Your task to perform on an android device: Add "dell xps" to the cart on ebay Image 0: 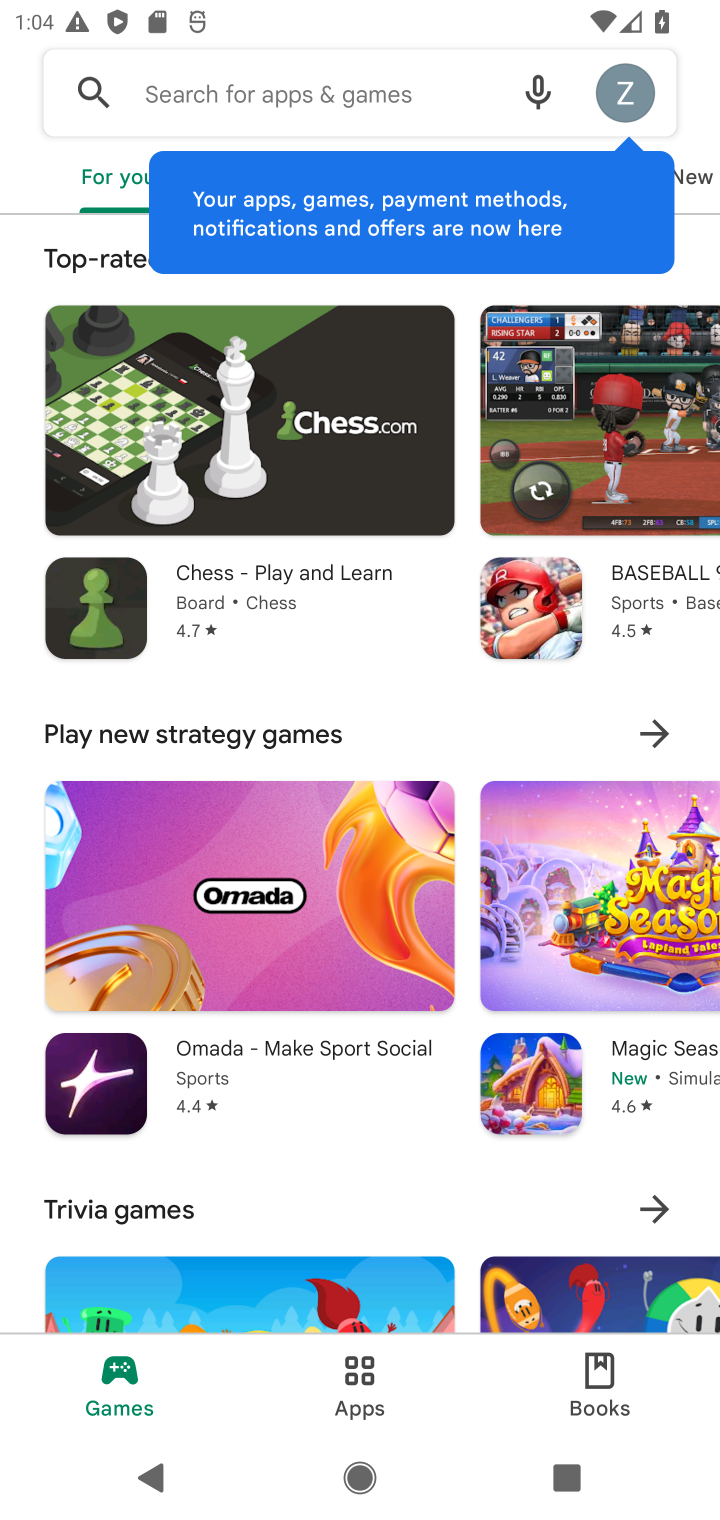
Step 0: press home button
Your task to perform on an android device: Add "dell xps" to the cart on ebay Image 1: 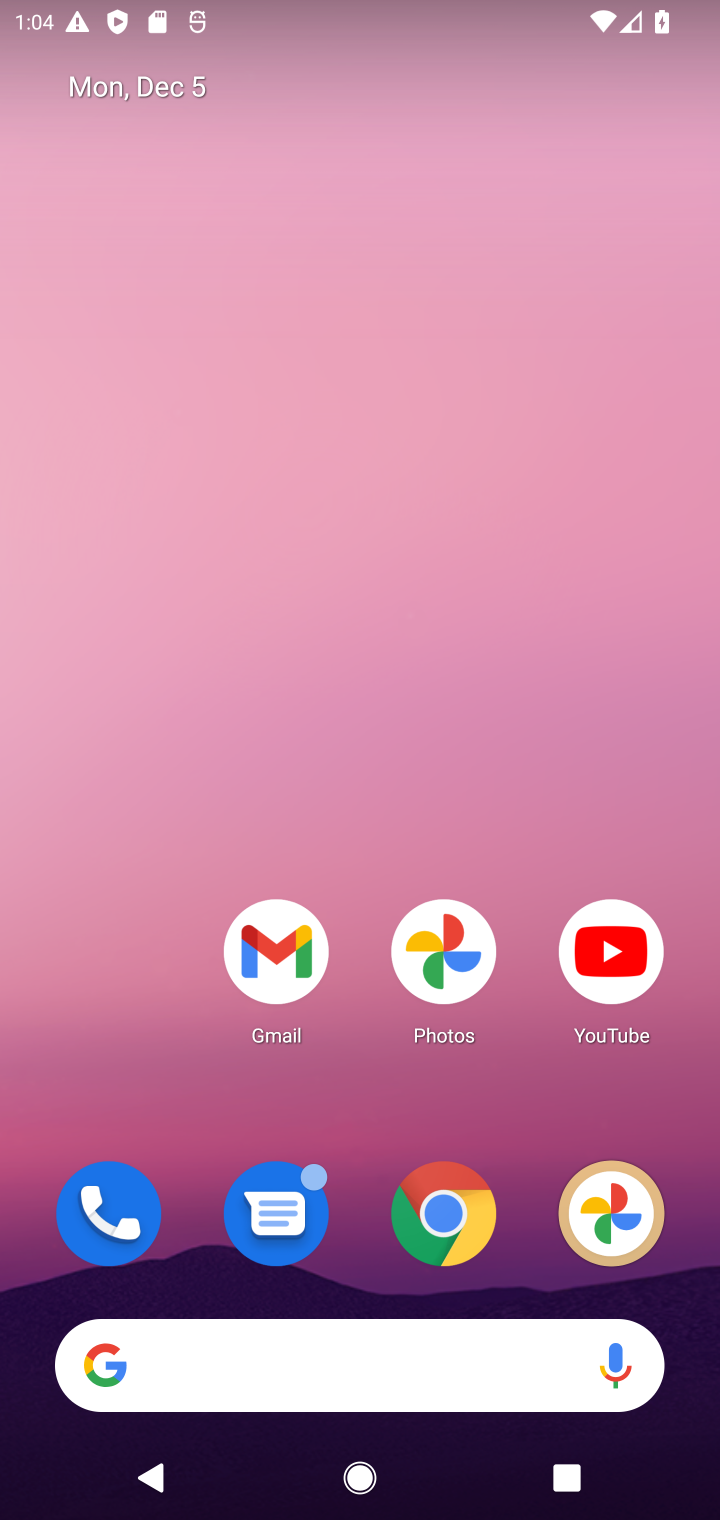
Step 1: click (445, 1203)
Your task to perform on an android device: Add "dell xps" to the cart on ebay Image 2: 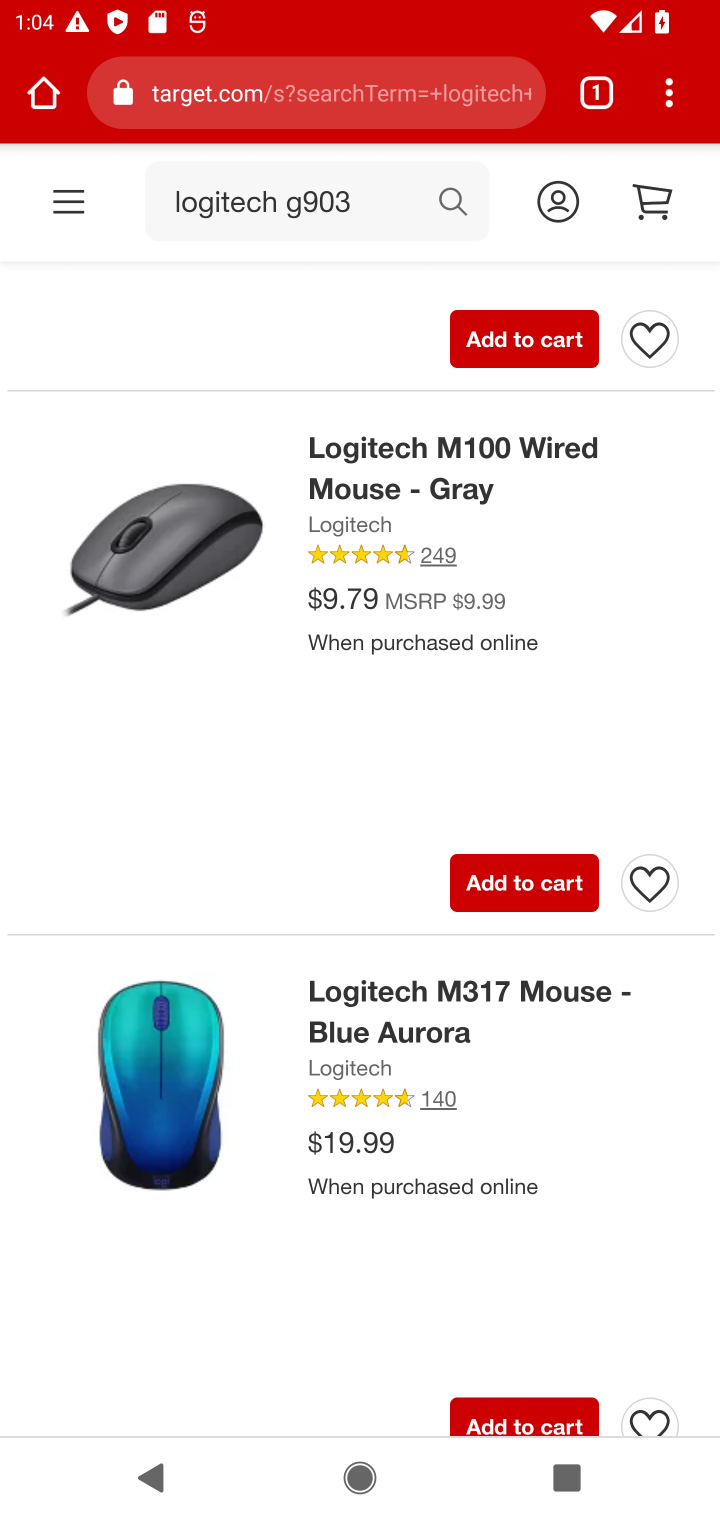
Step 2: click (288, 99)
Your task to perform on an android device: Add "dell xps" to the cart on ebay Image 3: 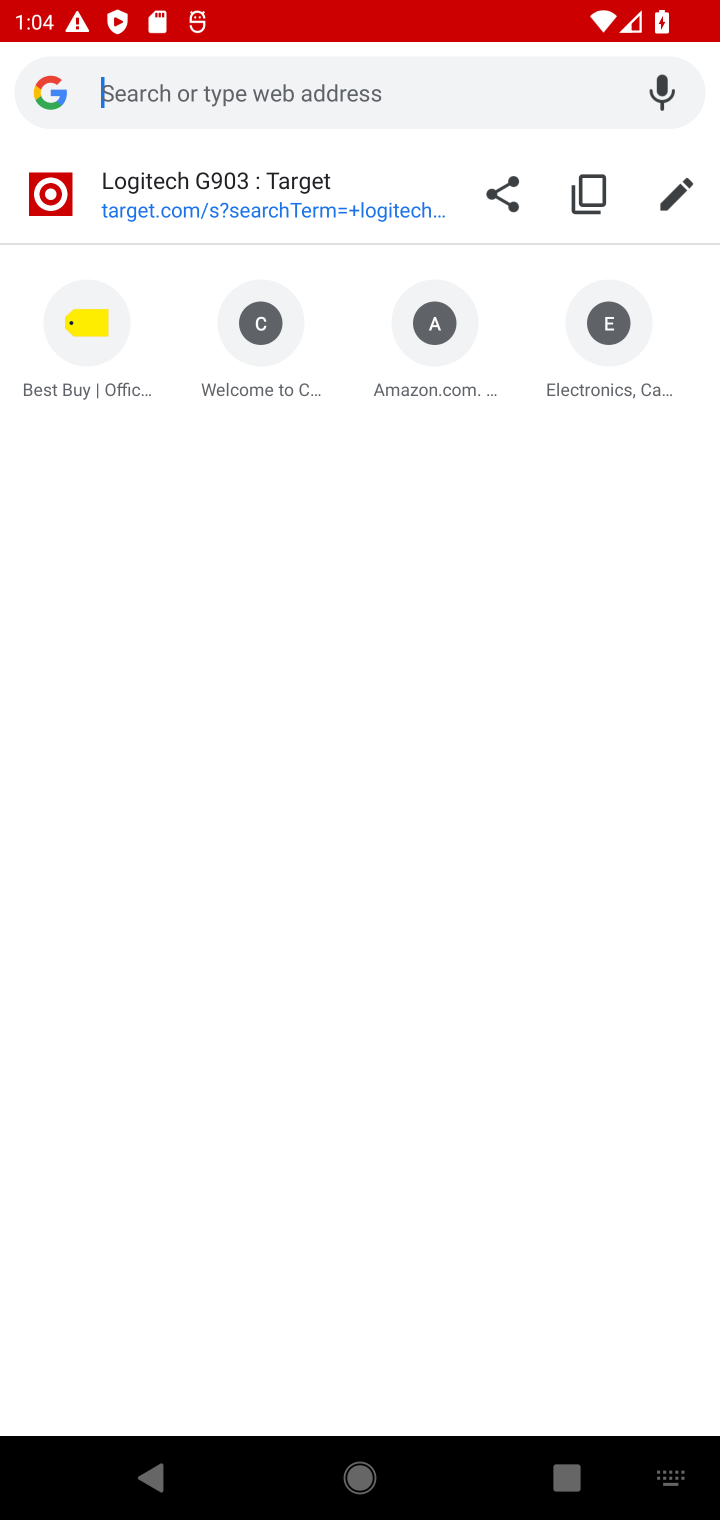
Step 3: type "ebay.com"
Your task to perform on an android device: Add "dell xps" to the cart on ebay Image 4: 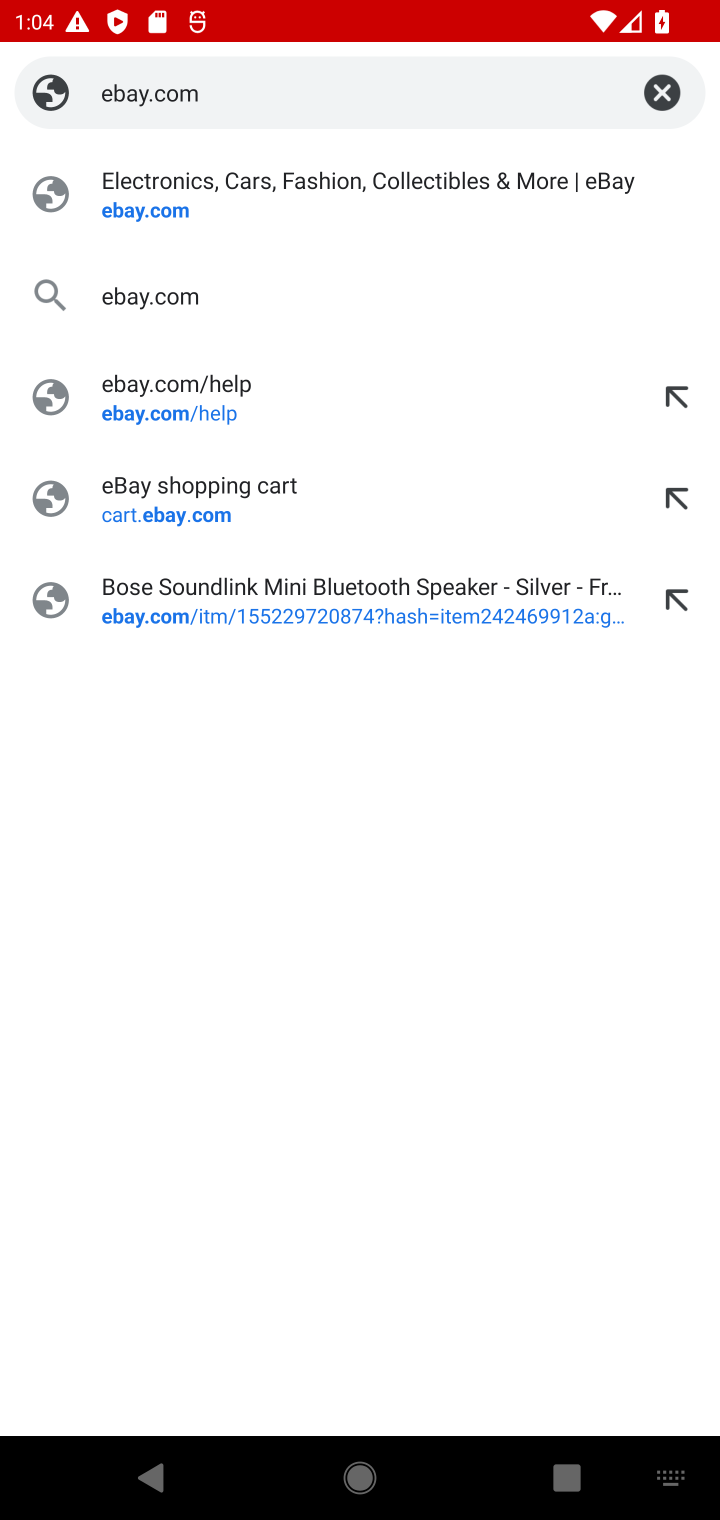
Step 4: click (151, 198)
Your task to perform on an android device: Add "dell xps" to the cart on ebay Image 5: 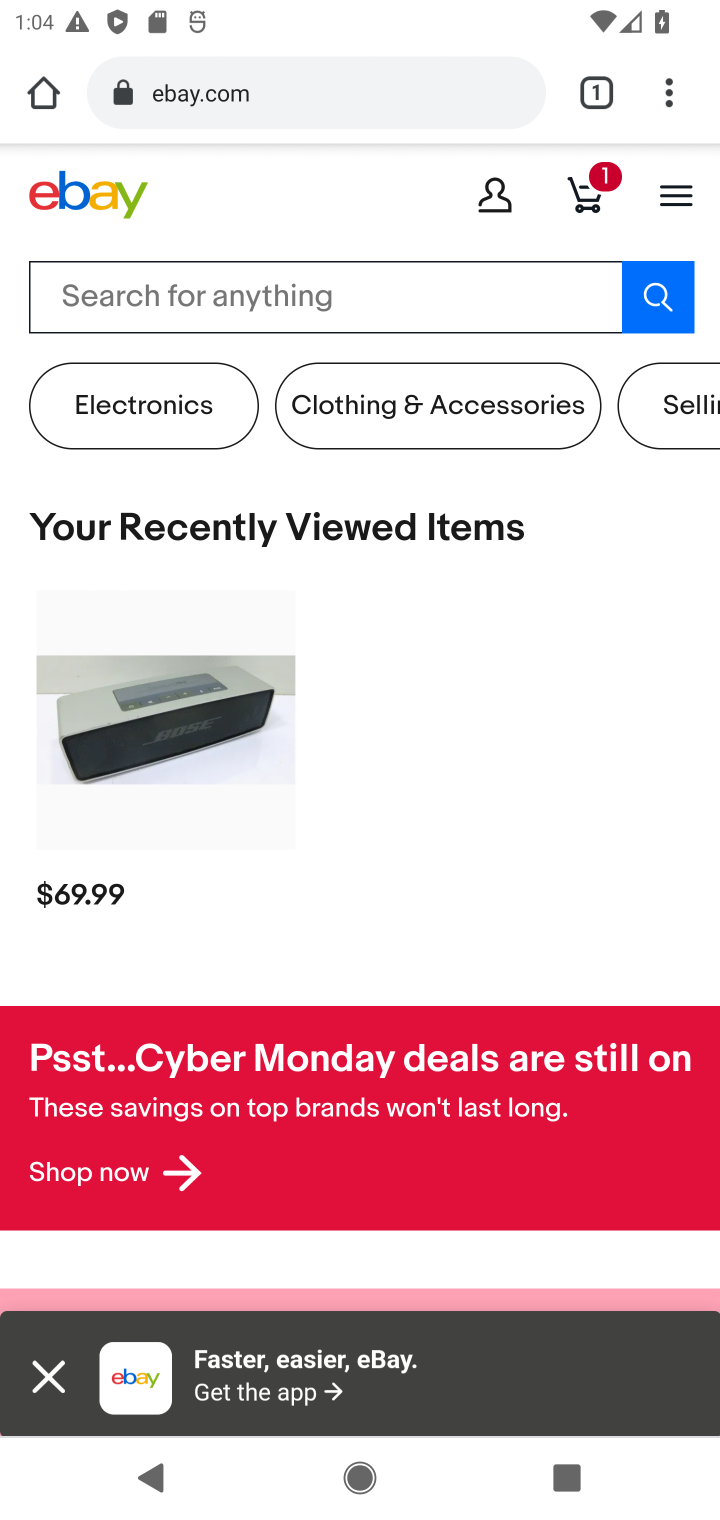
Step 5: click (257, 291)
Your task to perform on an android device: Add "dell xps" to the cart on ebay Image 6: 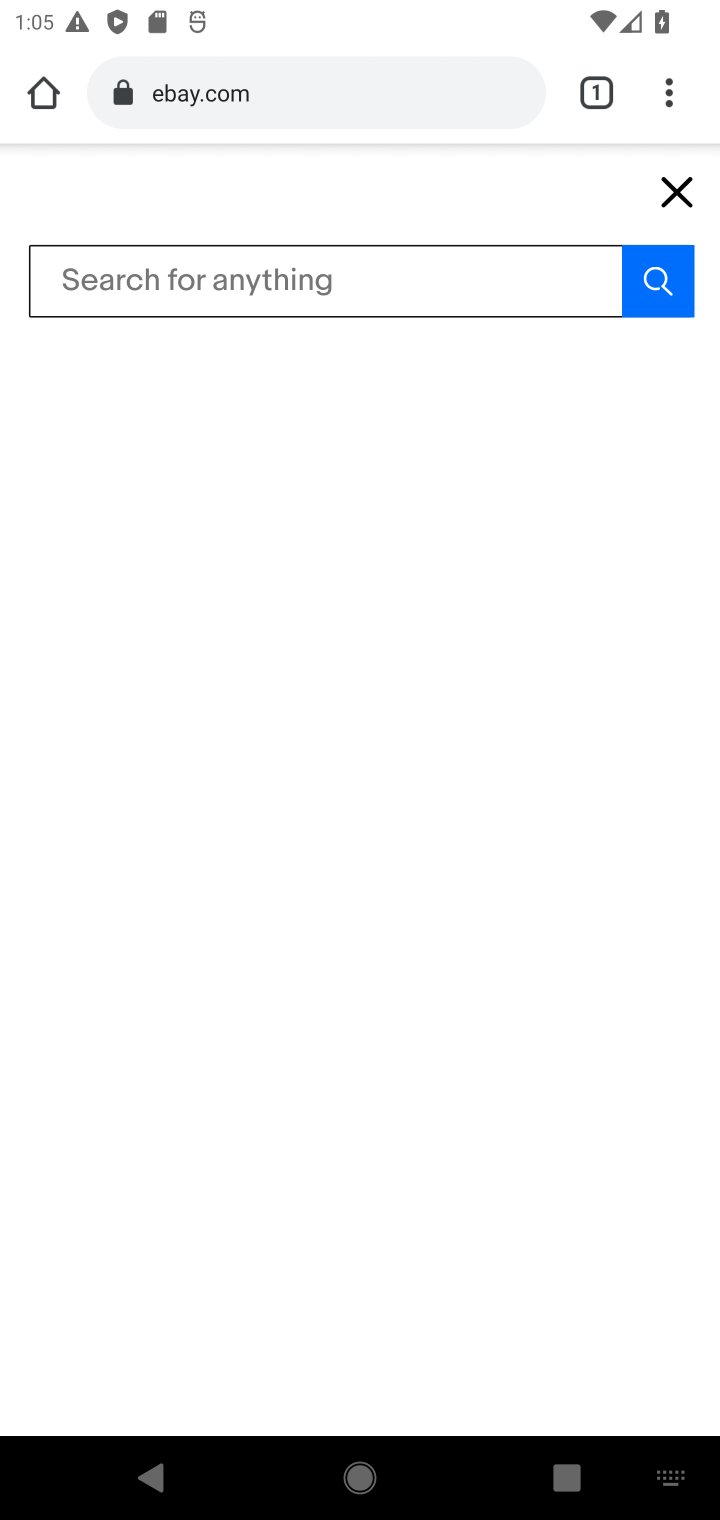
Step 6: type "dell xps "
Your task to perform on an android device: Add "dell xps" to the cart on ebay Image 7: 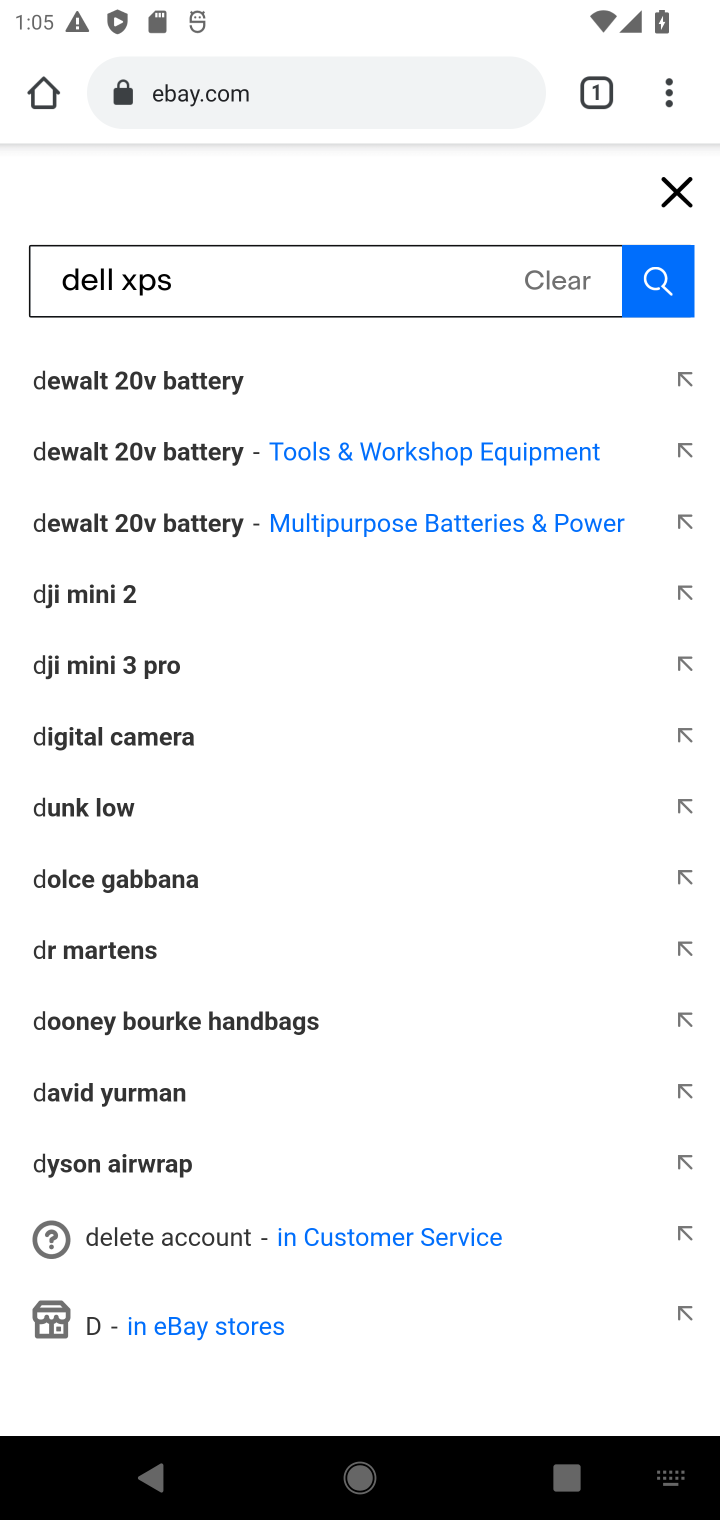
Step 7: click (656, 284)
Your task to perform on an android device: Add "dell xps" to the cart on ebay Image 8: 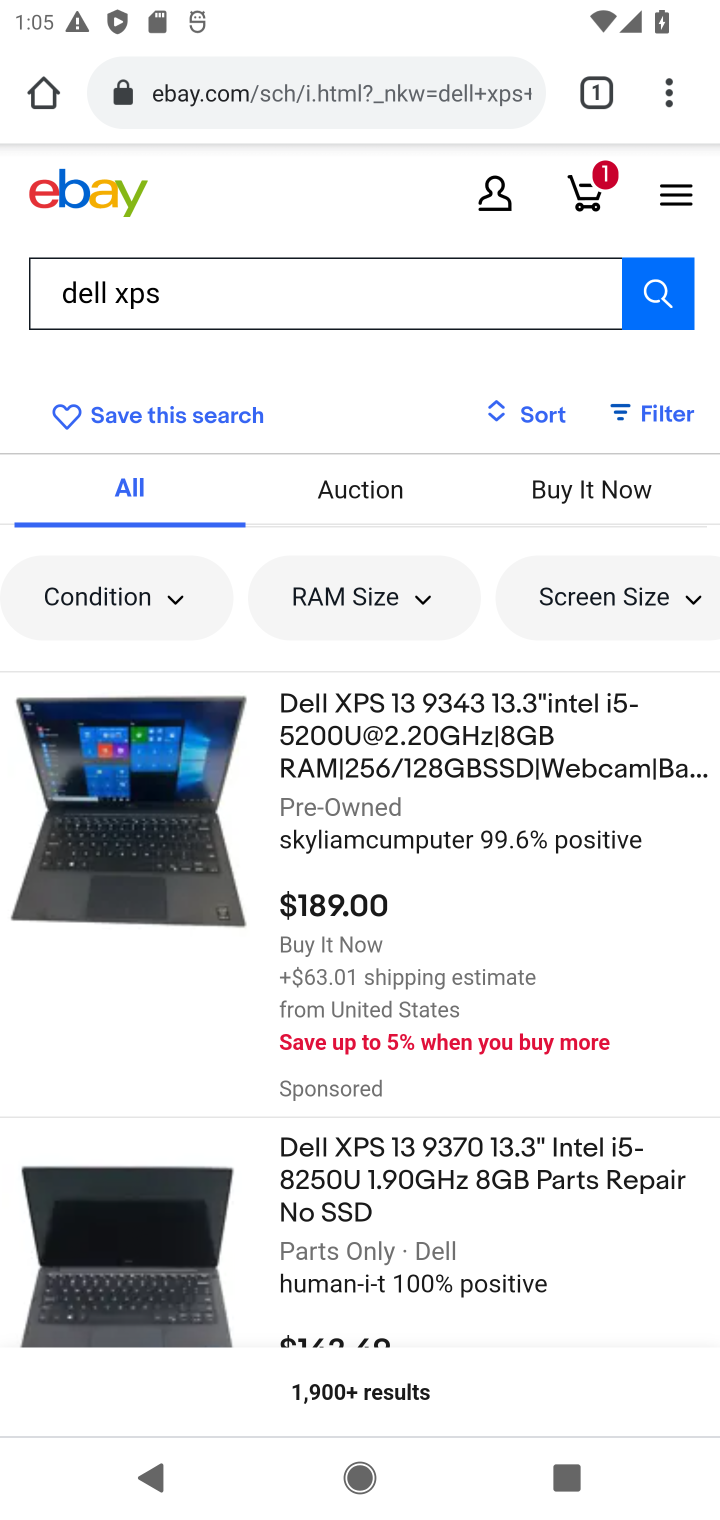
Step 8: click (333, 780)
Your task to perform on an android device: Add "dell xps" to the cart on ebay Image 9: 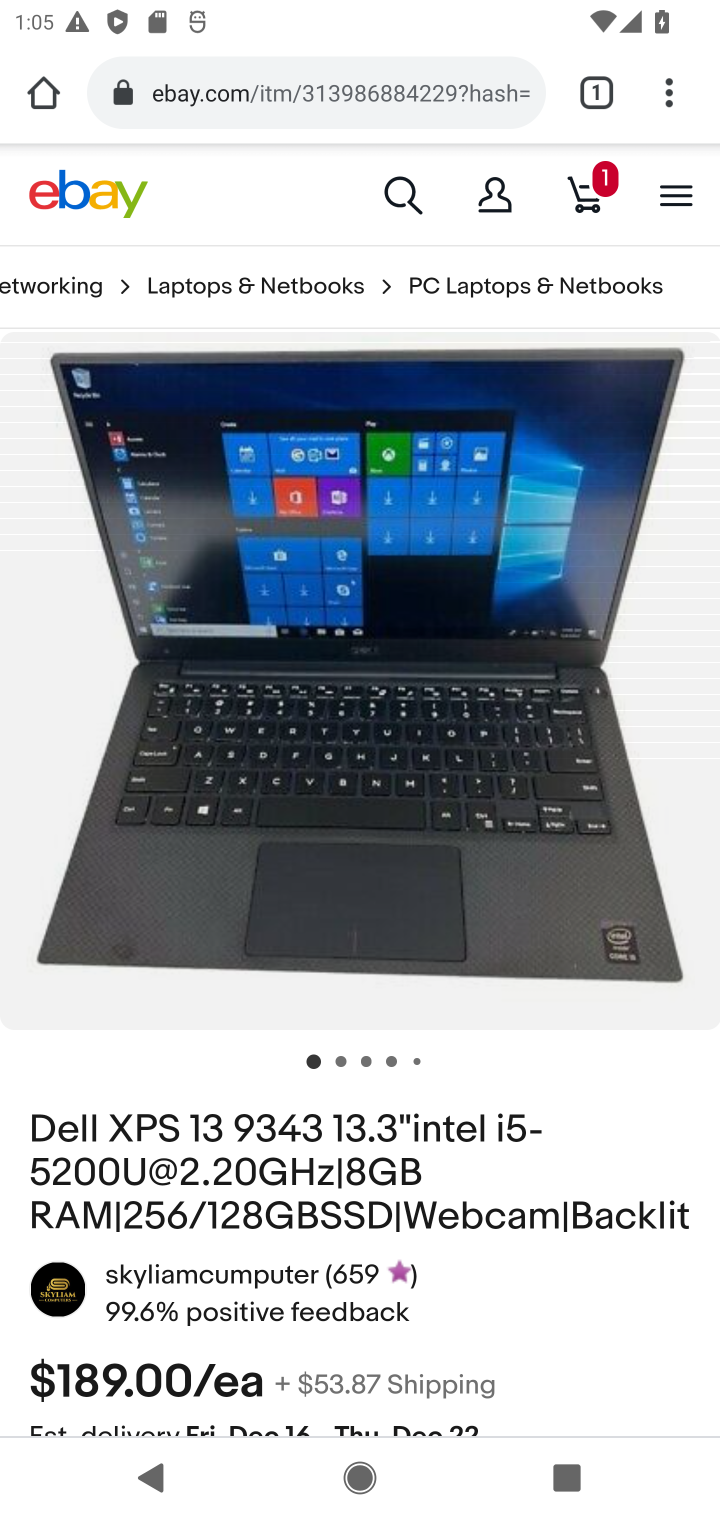
Step 9: drag from (265, 1014) to (319, 317)
Your task to perform on an android device: Add "dell xps" to the cart on ebay Image 10: 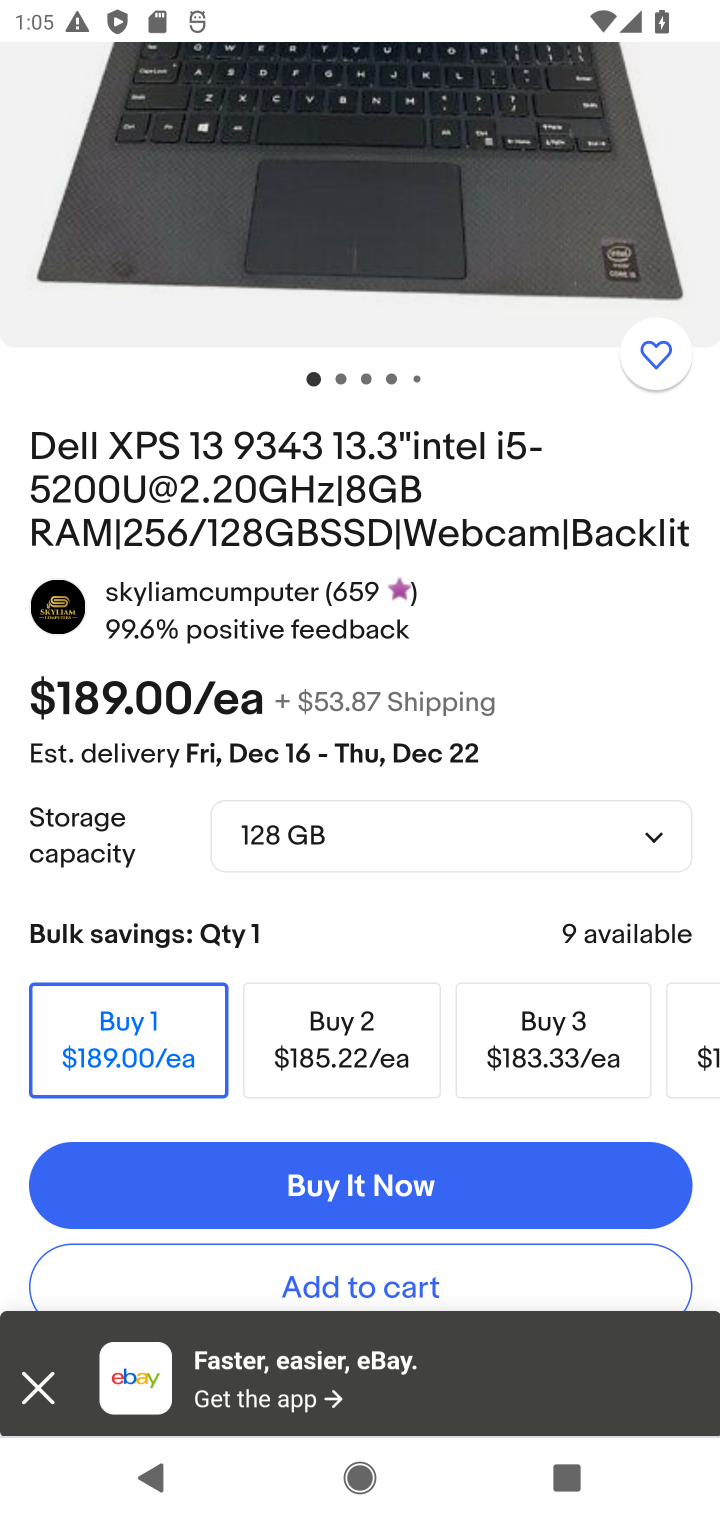
Step 10: drag from (248, 945) to (270, 572)
Your task to perform on an android device: Add "dell xps" to the cart on ebay Image 11: 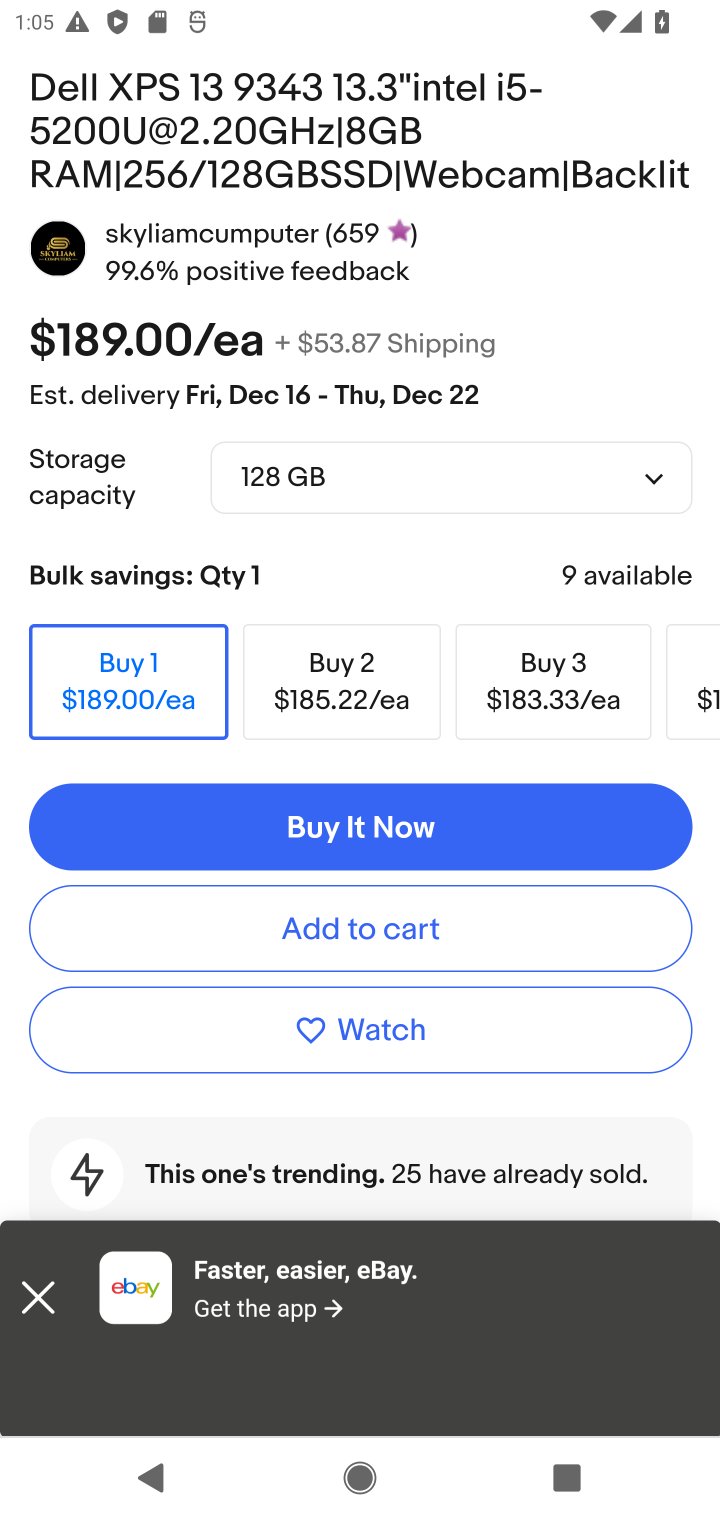
Step 11: click (290, 907)
Your task to perform on an android device: Add "dell xps" to the cart on ebay Image 12: 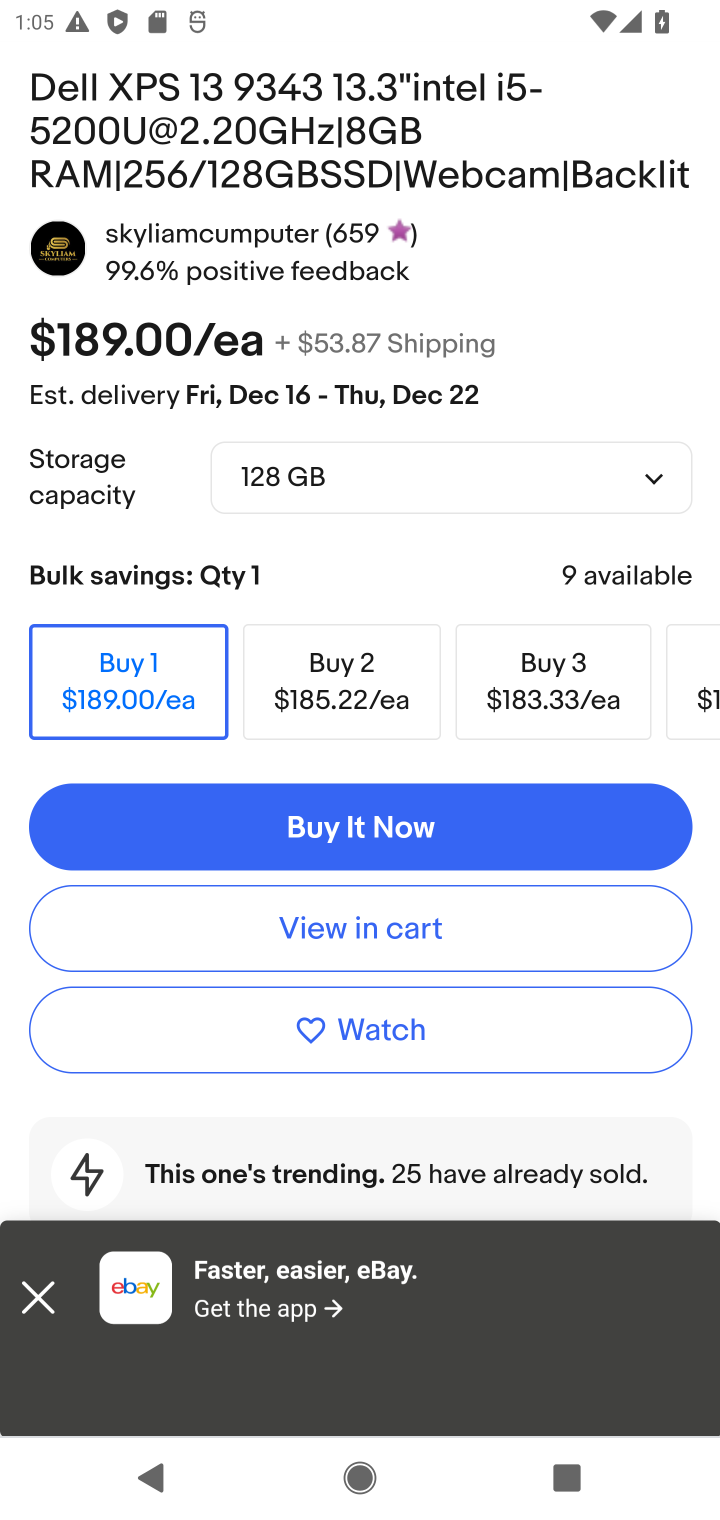
Step 12: task complete